Your task to perform on an android device: When is my next appointment? Image 0: 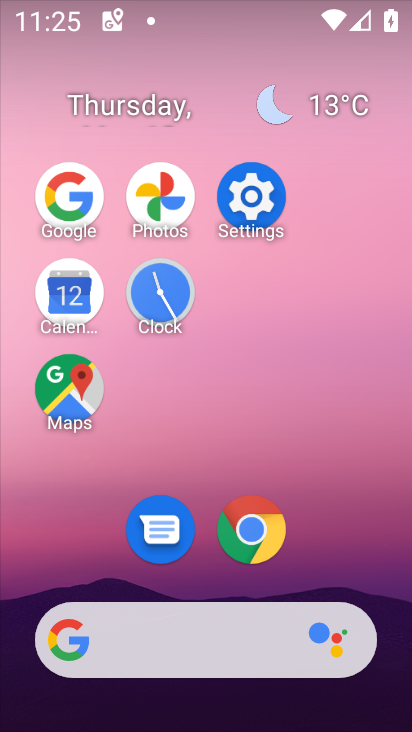
Step 0: click (56, 304)
Your task to perform on an android device: When is my next appointment? Image 1: 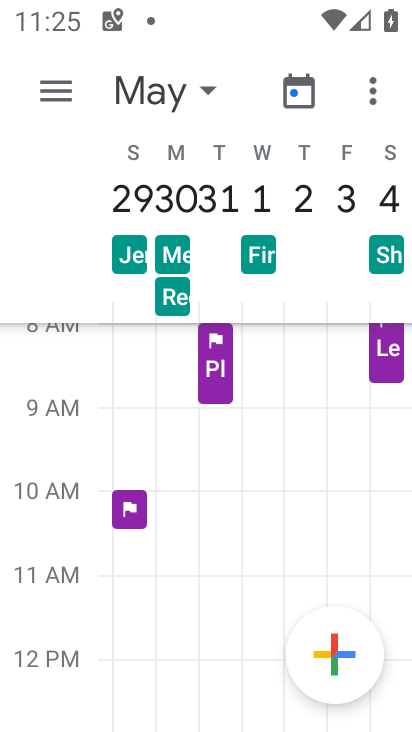
Step 1: click (61, 108)
Your task to perform on an android device: When is my next appointment? Image 2: 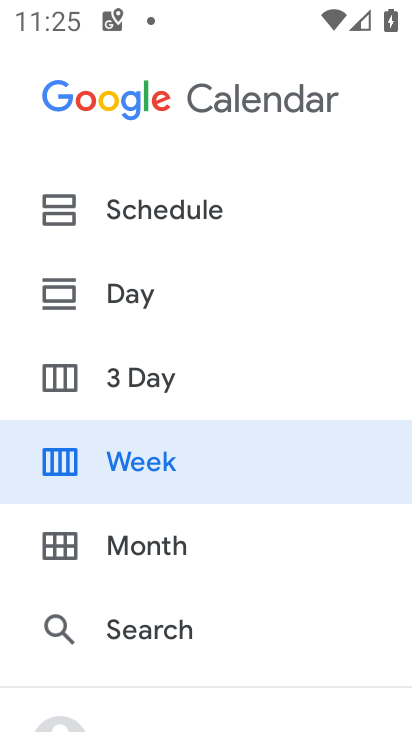
Step 2: click (109, 314)
Your task to perform on an android device: When is my next appointment? Image 3: 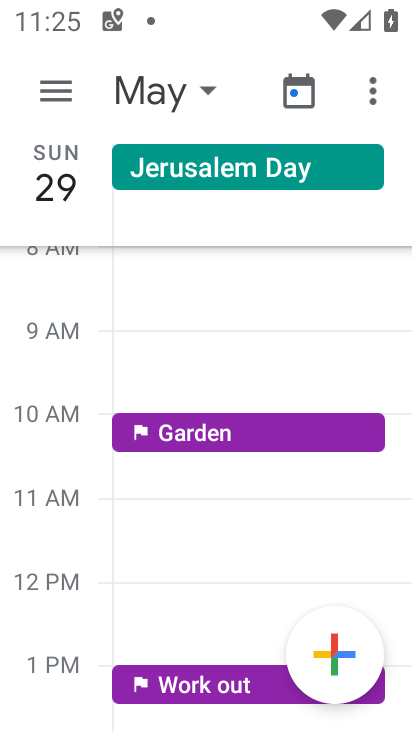
Step 3: click (154, 116)
Your task to perform on an android device: When is my next appointment? Image 4: 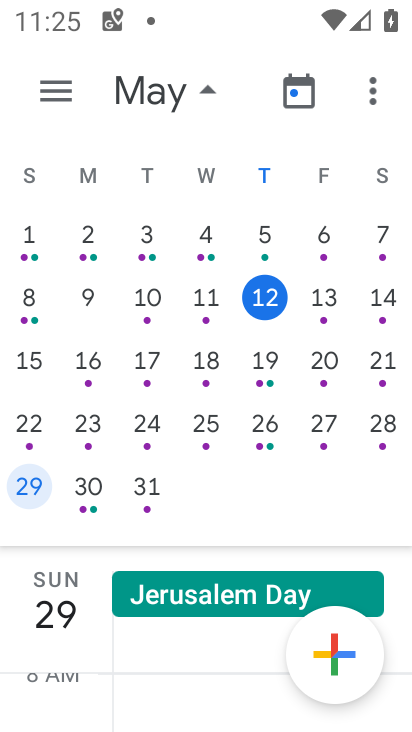
Step 4: click (391, 303)
Your task to perform on an android device: When is my next appointment? Image 5: 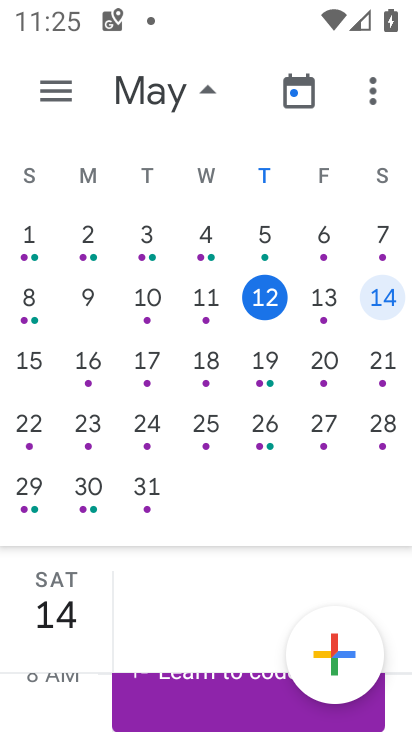
Step 5: click (31, 593)
Your task to perform on an android device: When is my next appointment? Image 6: 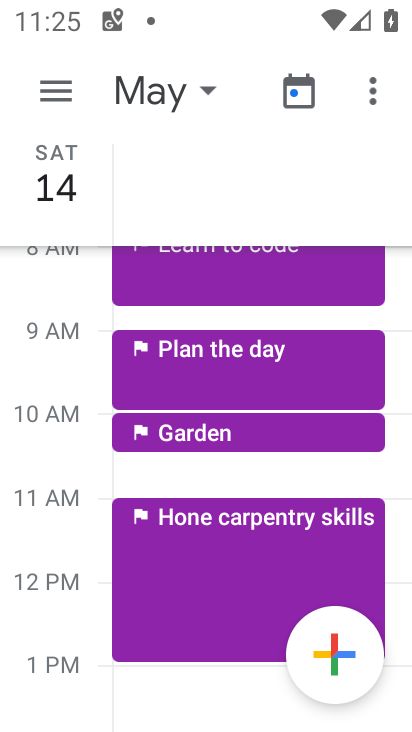
Step 6: task complete